Your task to perform on an android device: Go to settings Image 0: 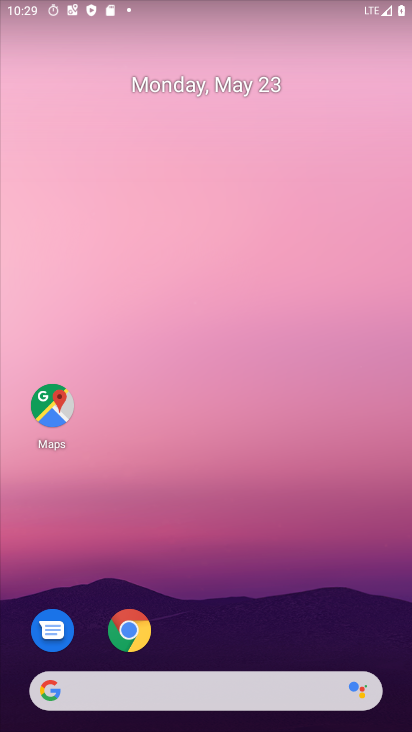
Step 0: drag from (261, 645) to (282, 13)
Your task to perform on an android device: Go to settings Image 1: 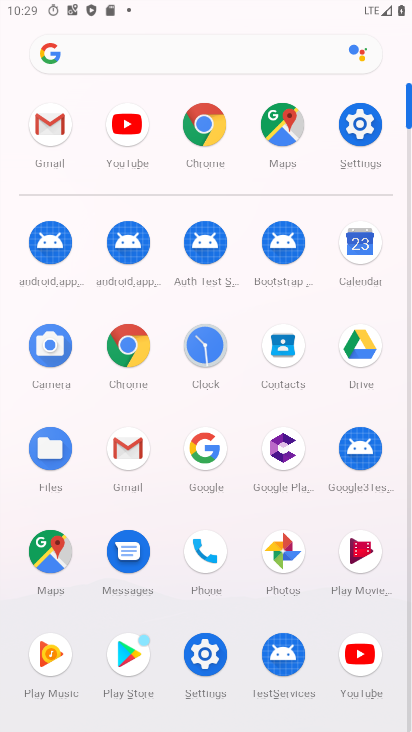
Step 1: click (358, 128)
Your task to perform on an android device: Go to settings Image 2: 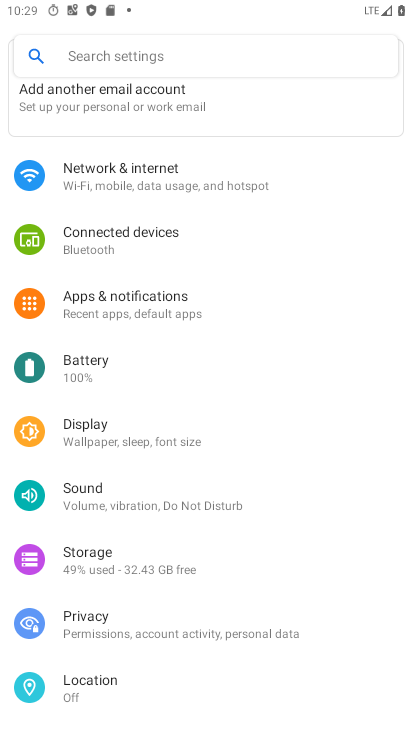
Step 2: task complete